Your task to perform on an android device: What's the weather going to be tomorrow? Image 0: 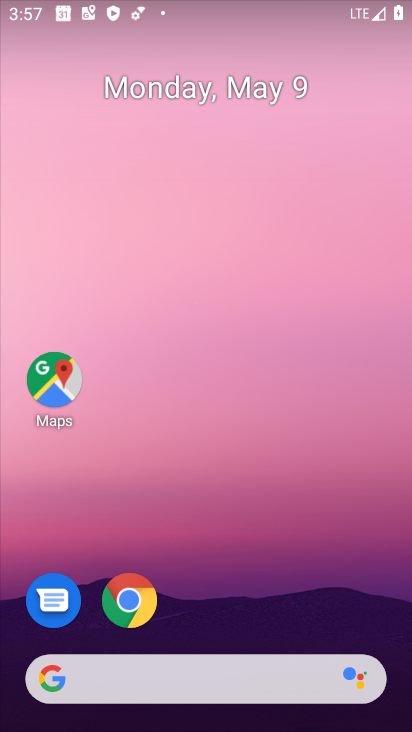
Step 0: drag from (253, 681) to (260, 64)
Your task to perform on an android device: What's the weather going to be tomorrow? Image 1: 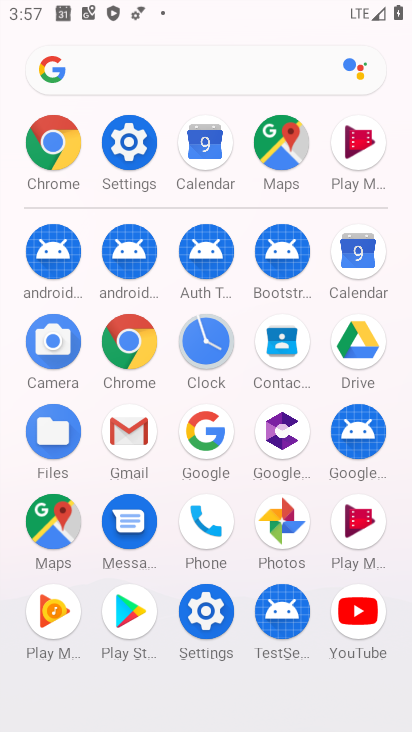
Step 1: click (118, 352)
Your task to perform on an android device: What's the weather going to be tomorrow? Image 2: 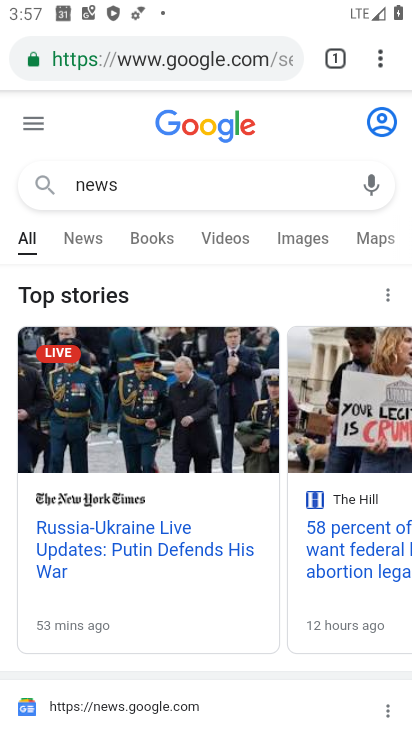
Step 2: click (222, 61)
Your task to perform on an android device: What's the weather going to be tomorrow? Image 3: 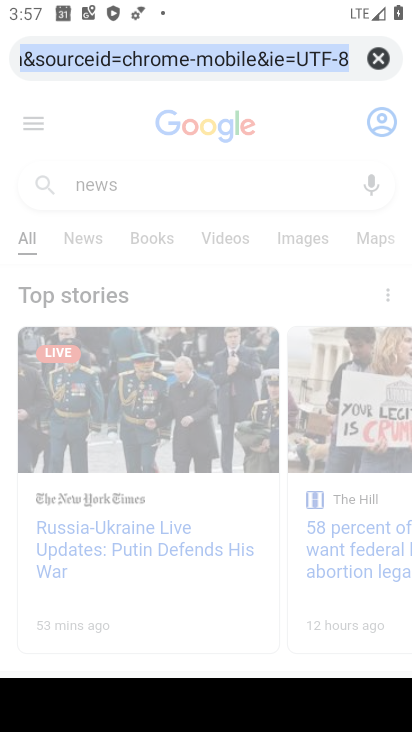
Step 3: click (371, 63)
Your task to perform on an android device: What's the weather going to be tomorrow? Image 4: 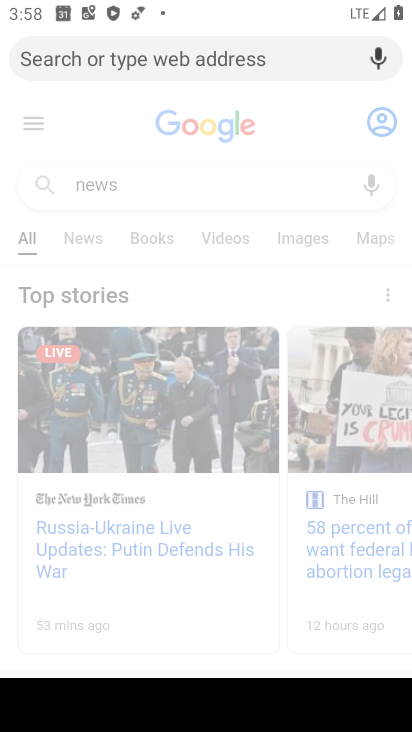
Step 4: click (88, 46)
Your task to perform on an android device: What's the weather going to be tomorrow? Image 5: 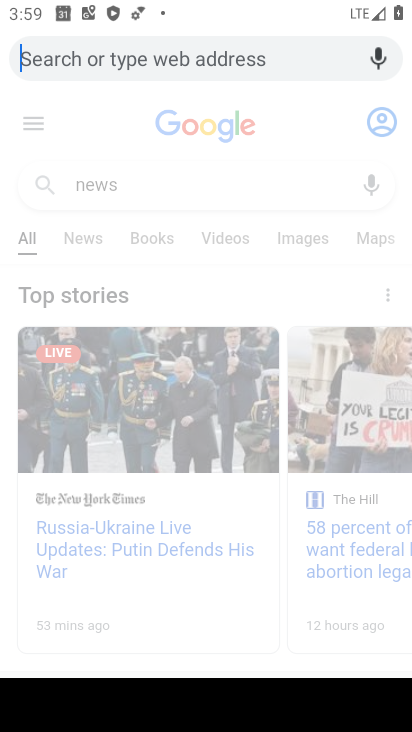
Step 5: type "weather going to be tomorrow"
Your task to perform on an android device: What's the weather going to be tomorrow? Image 6: 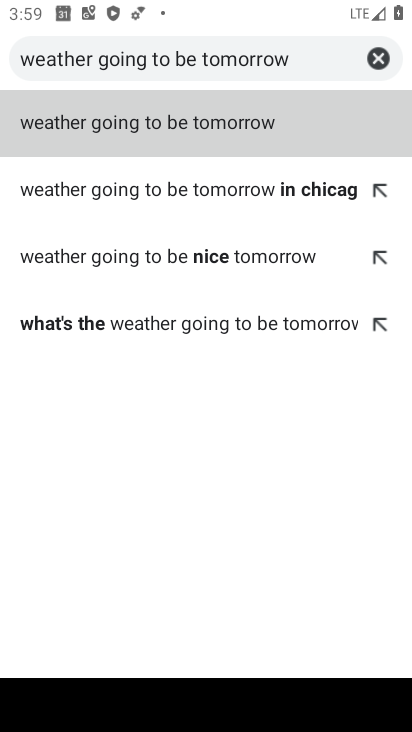
Step 6: click (234, 112)
Your task to perform on an android device: What's the weather going to be tomorrow? Image 7: 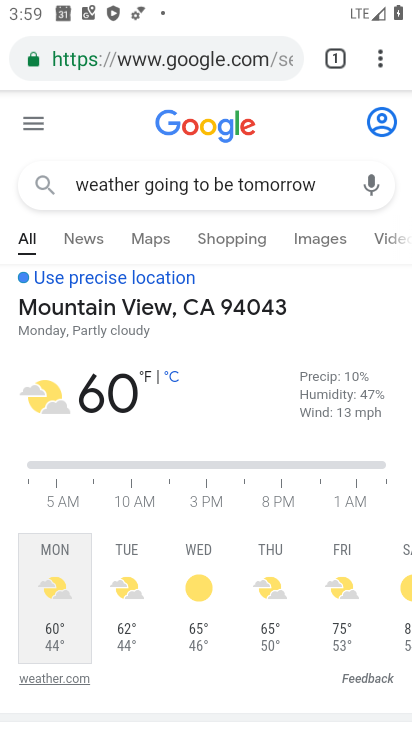
Step 7: task complete